Your task to perform on an android device: Search for 3d printer on AliExpress Image 0: 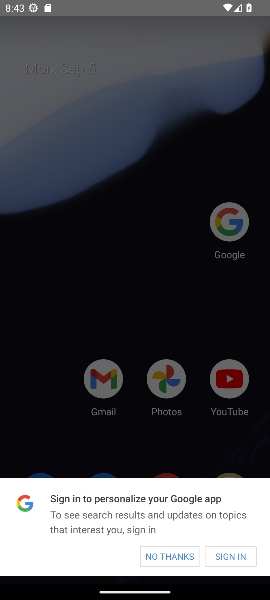
Step 0: click (174, 553)
Your task to perform on an android device: Search for 3d printer on AliExpress Image 1: 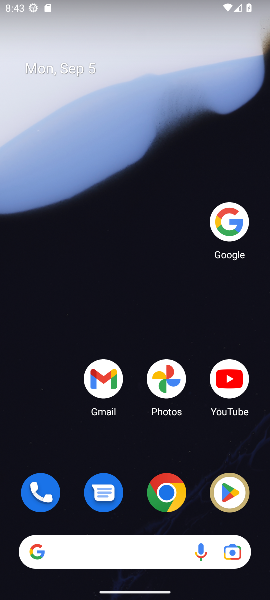
Step 1: click (223, 218)
Your task to perform on an android device: Search for 3d printer on AliExpress Image 2: 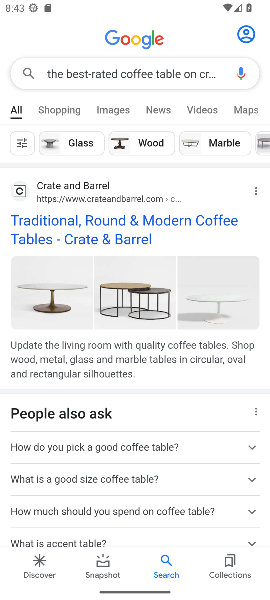
Step 2: click (186, 68)
Your task to perform on an android device: Search for 3d printer on AliExpress Image 3: 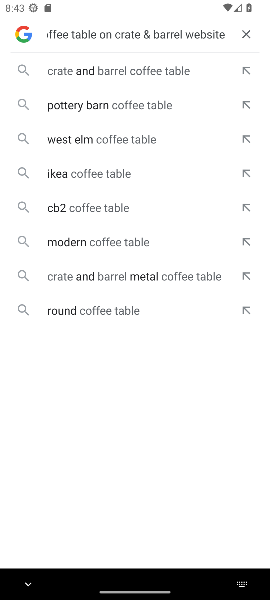
Step 3: click (249, 33)
Your task to perform on an android device: Search for 3d printer on AliExpress Image 4: 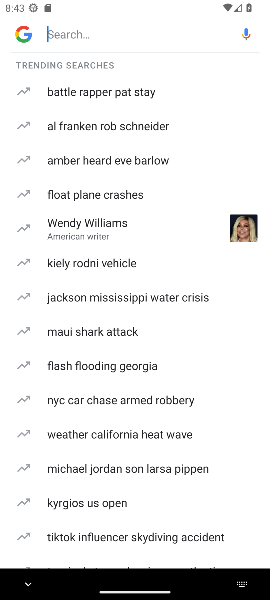
Step 4: click (122, 24)
Your task to perform on an android device: Search for 3d printer on AliExpress Image 5: 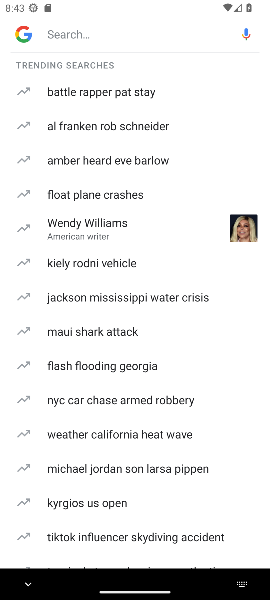
Step 5: type "3d printer on AliExpress "
Your task to perform on an android device: Search for 3d printer on AliExpress Image 6: 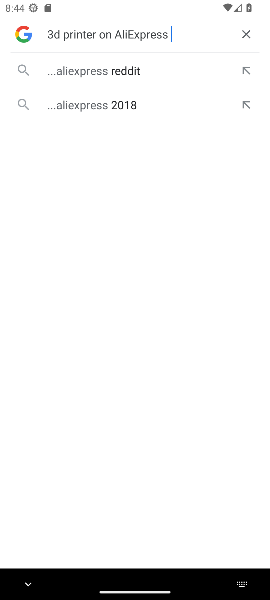
Step 6: click (75, 75)
Your task to perform on an android device: Search for 3d printer on AliExpress Image 7: 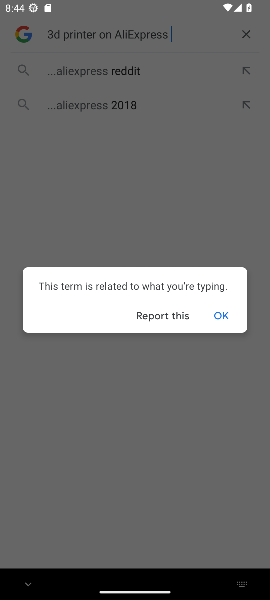
Step 7: click (221, 313)
Your task to perform on an android device: Search for 3d printer on AliExpress Image 8: 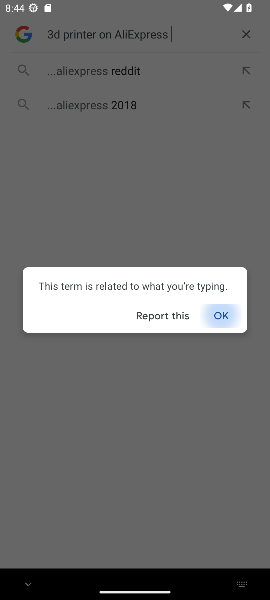
Step 8: click (50, 97)
Your task to perform on an android device: Search for 3d printer on AliExpress Image 9: 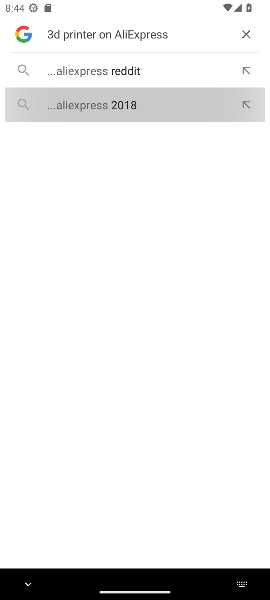
Step 9: click (90, 115)
Your task to perform on an android device: Search for 3d printer on AliExpress Image 10: 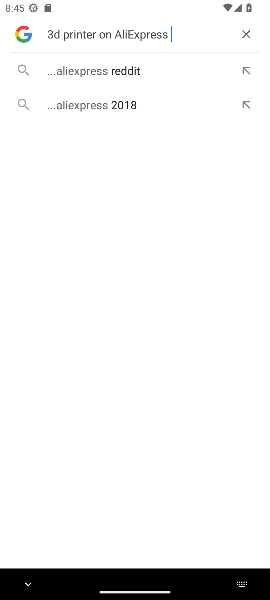
Step 10: click (100, 67)
Your task to perform on an android device: Search for 3d printer on AliExpress Image 11: 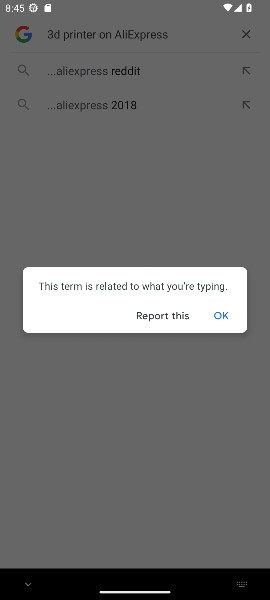
Step 11: click (216, 314)
Your task to perform on an android device: Search for 3d printer on AliExpress Image 12: 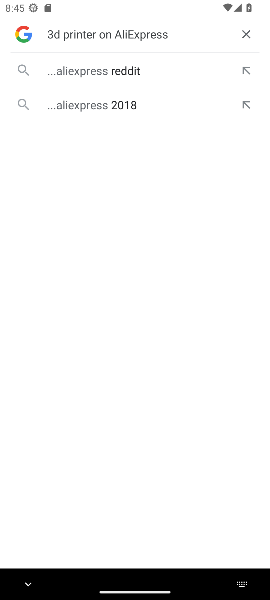
Step 12: click (96, 109)
Your task to perform on an android device: Search for 3d printer on AliExpress Image 13: 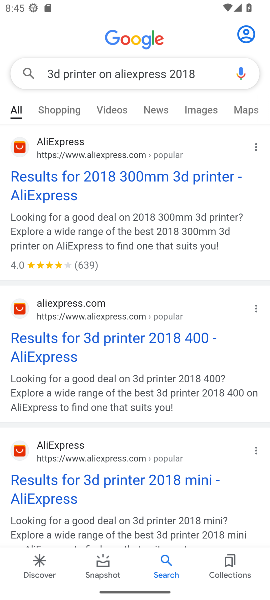
Step 13: click (169, 160)
Your task to perform on an android device: Search for 3d printer on AliExpress Image 14: 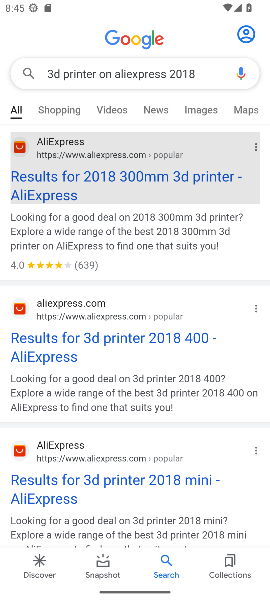
Step 14: task complete